Your task to perform on an android device: Go to battery settings Image 0: 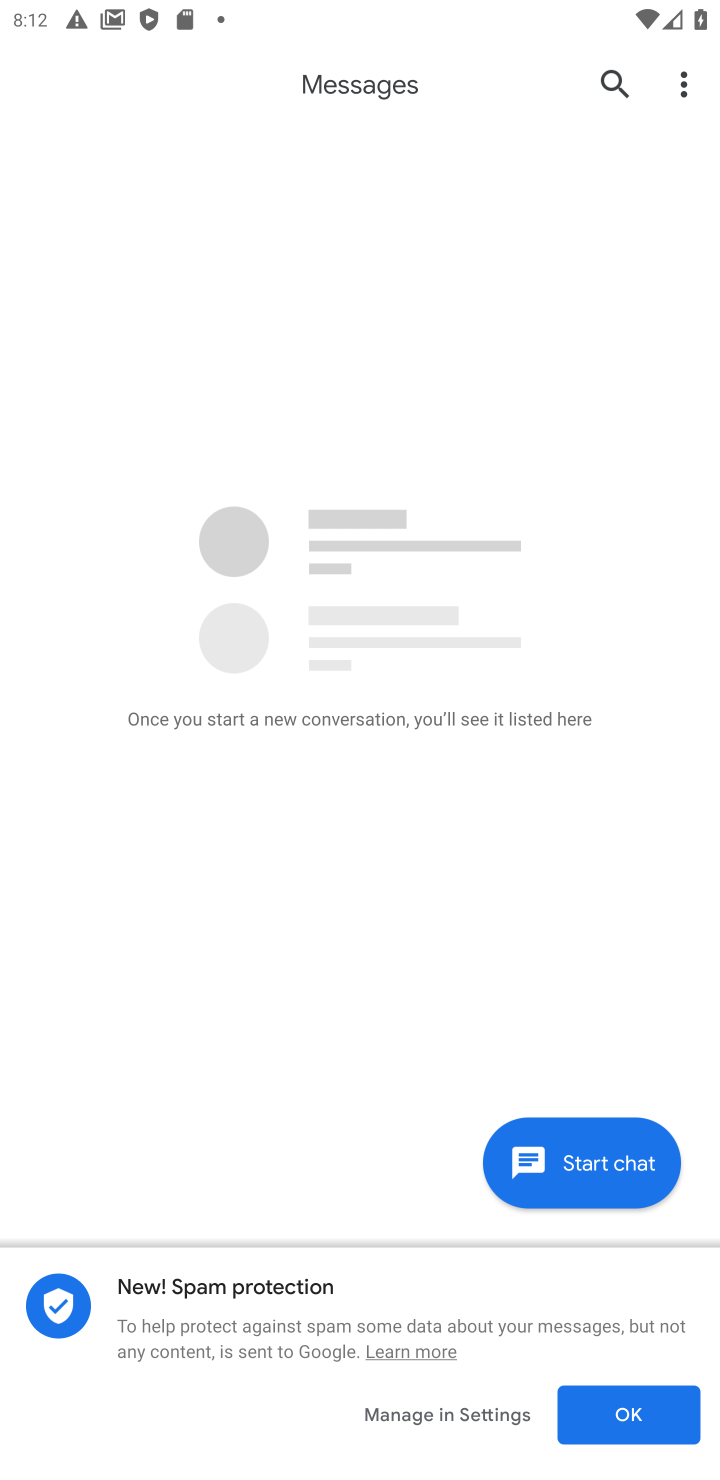
Step 0: press home button
Your task to perform on an android device: Go to battery settings Image 1: 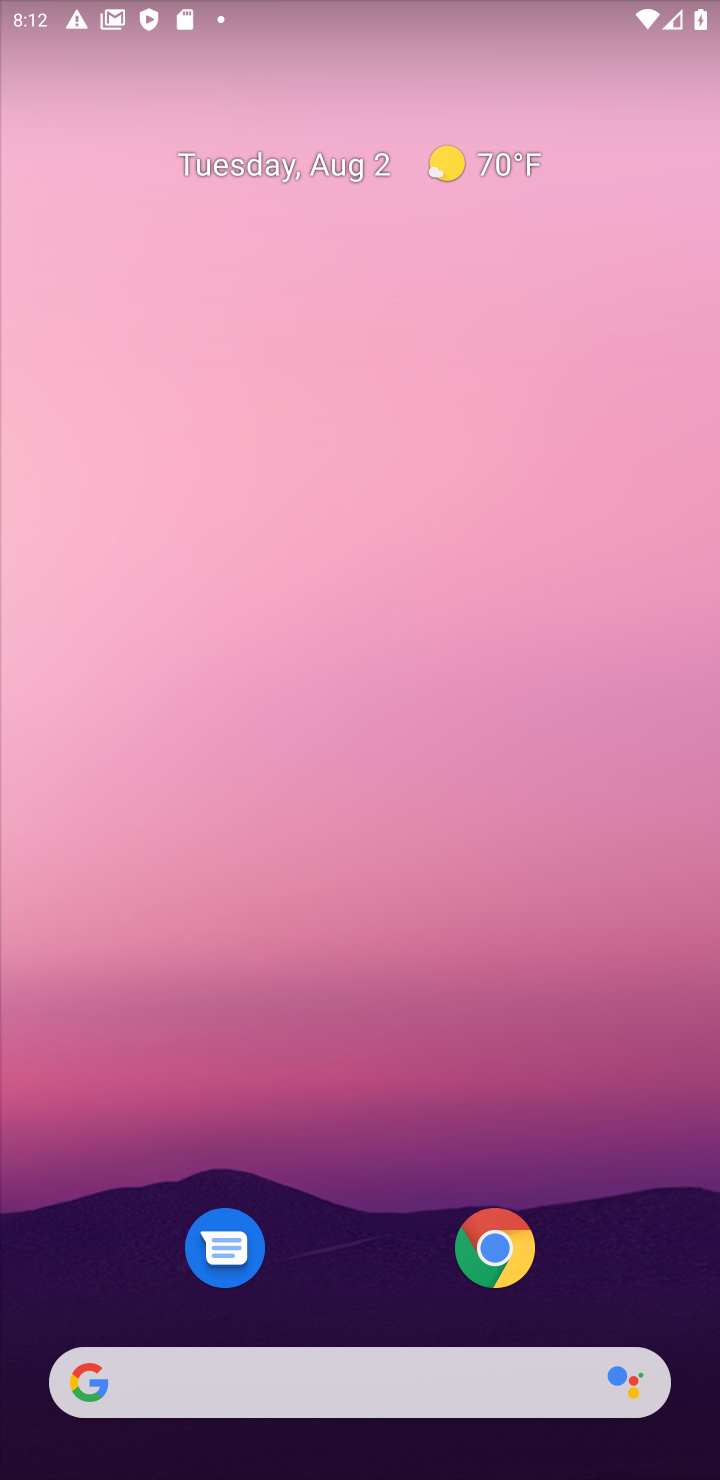
Step 1: drag from (382, 1218) to (491, 109)
Your task to perform on an android device: Go to battery settings Image 2: 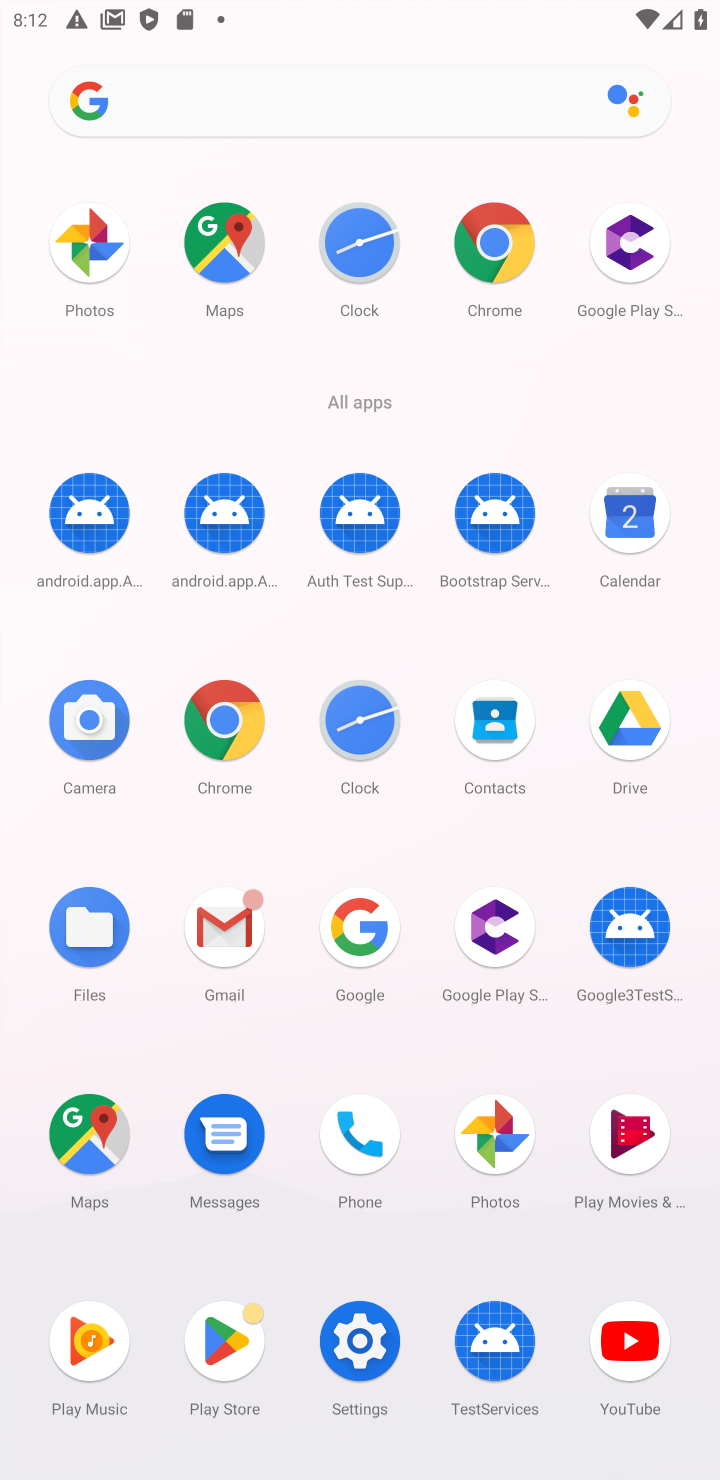
Step 2: click (368, 1328)
Your task to perform on an android device: Go to battery settings Image 3: 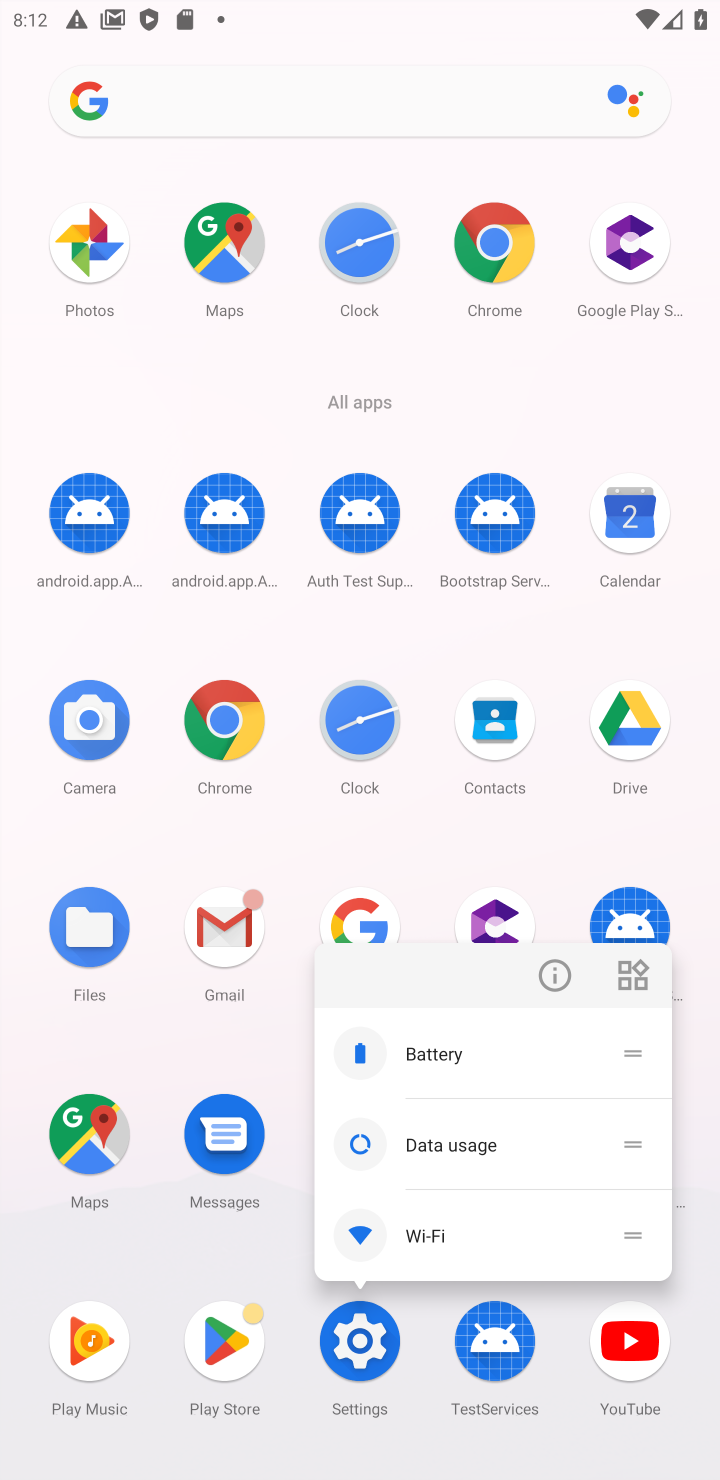
Step 3: click (368, 1328)
Your task to perform on an android device: Go to battery settings Image 4: 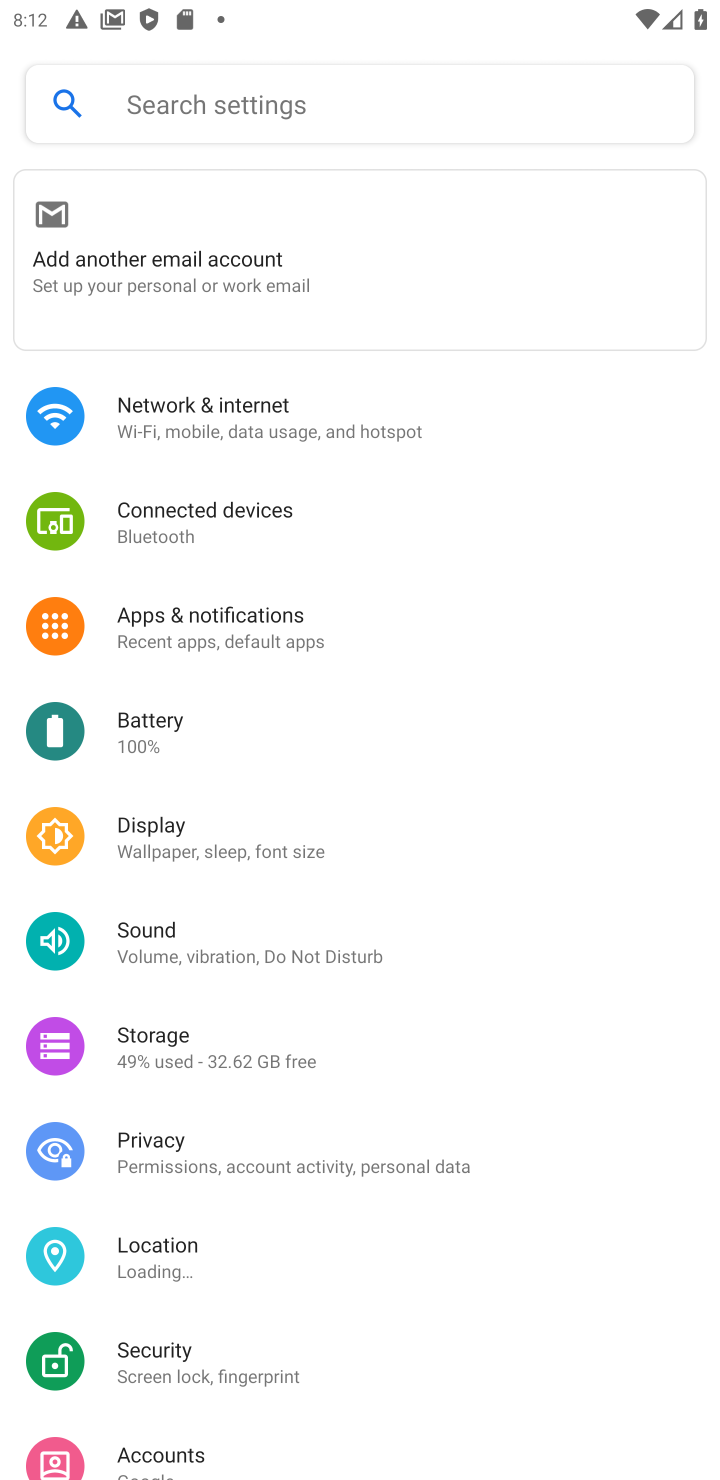
Step 4: click (136, 734)
Your task to perform on an android device: Go to battery settings Image 5: 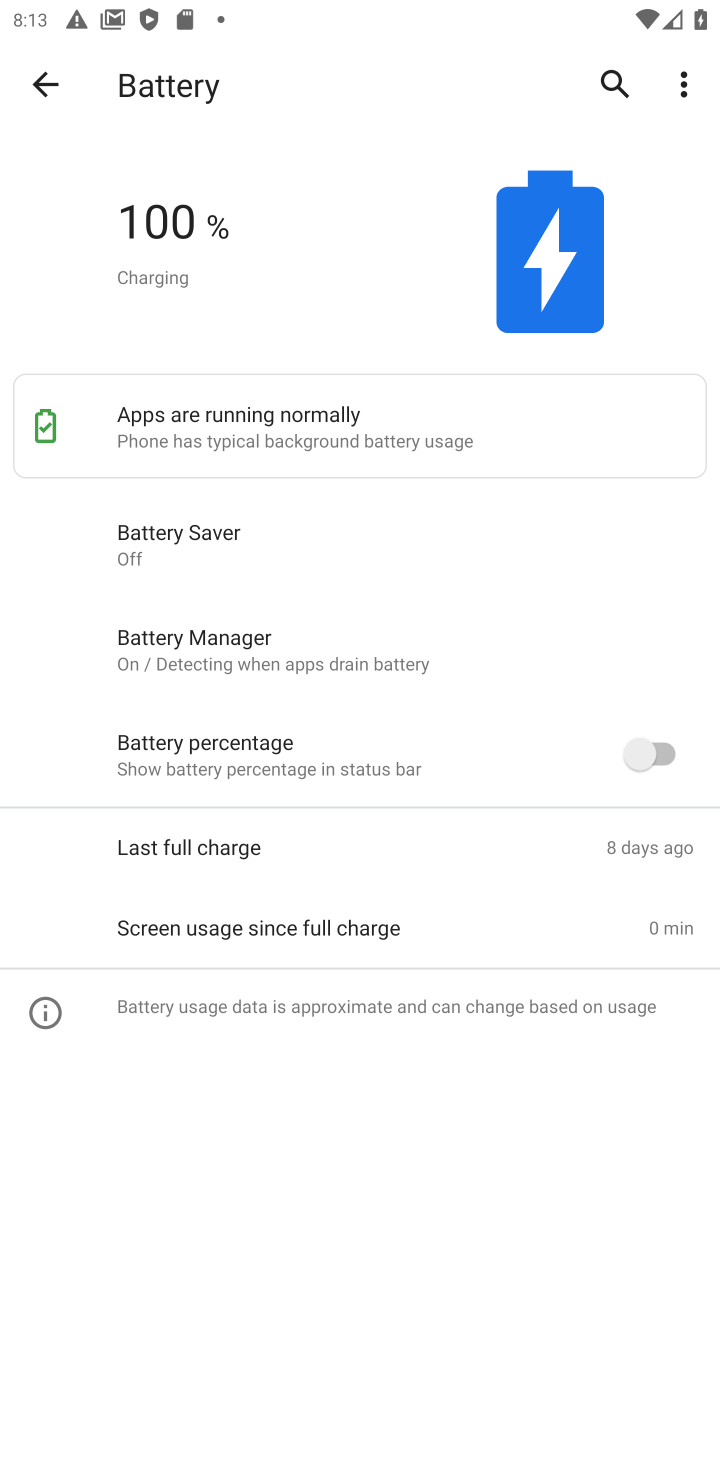
Step 5: task complete